Your task to perform on an android device: Is it going to rain this weekend? Image 0: 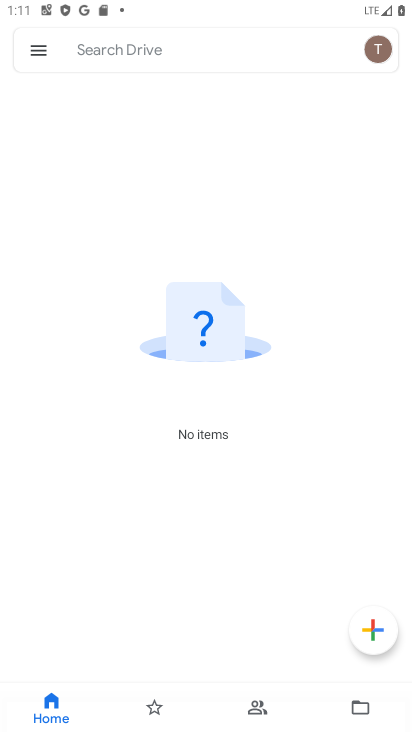
Step 0: press home button
Your task to perform on an android device: Is it going to rain this weekend? Image 1: 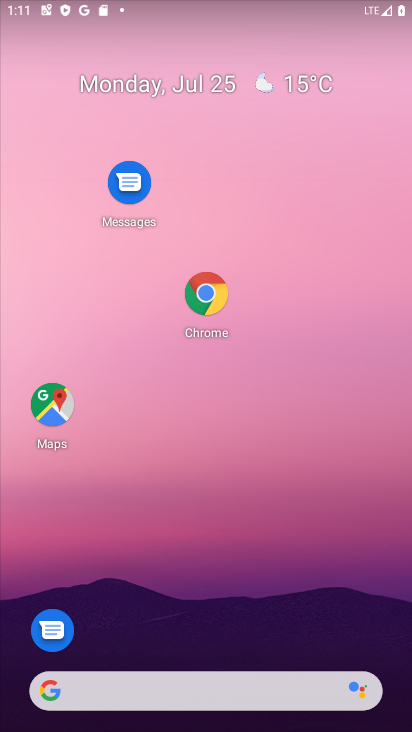
Step 1: click (193, 313)
Your task to perform on an android device: Is it going to rain this weekend? Image 2: 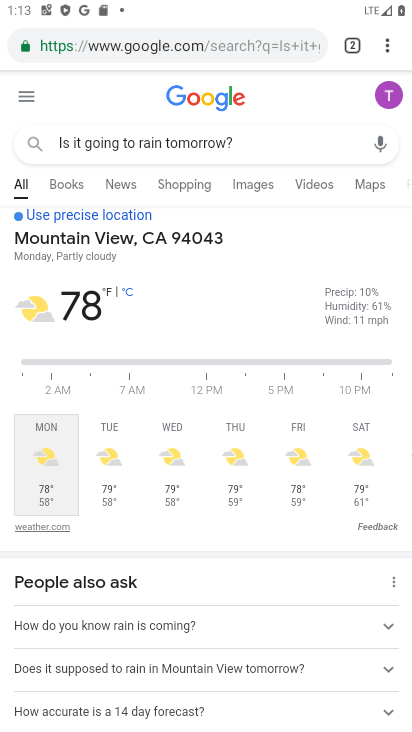
Step 2: task complete